Your task to perform on an android device: add a contact in the contacts app Image 0: 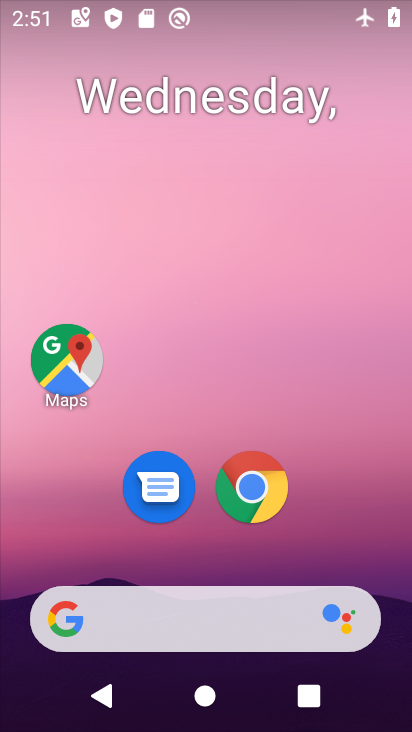
Step 0: drag from (305, 545) to (286, 117)
Your task to perform on an android device: add a contact in the contacts app Image 1: 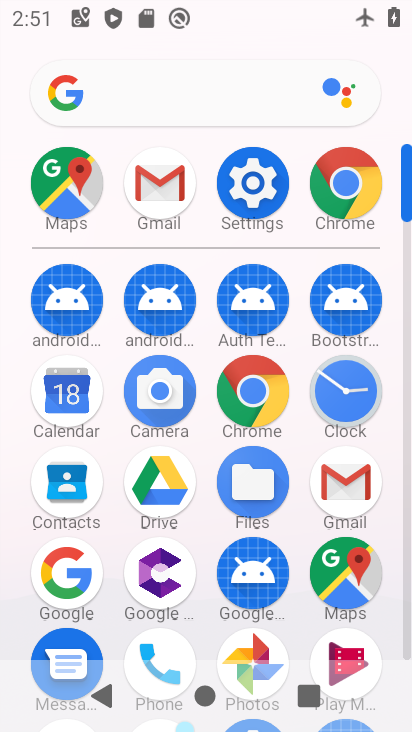
Step 1: click (60, 487)
Your task to perform on an android device: add a contact in the contacts app Image 2: 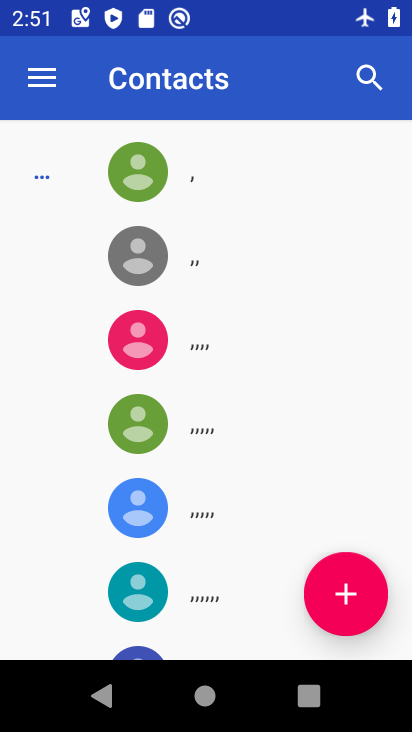
Step 2: click (348, 602)
Your task to perform on an android device: add a contact in the contacts app Image 3: 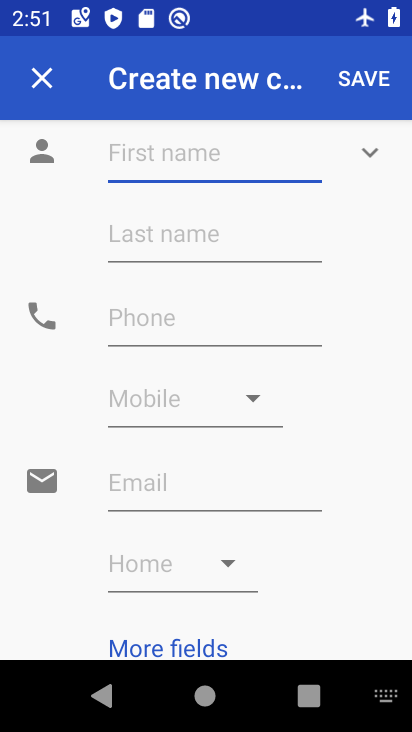
Step 3: type "ol,kmj n"
Your task to perform on an android device: add a contact in the contacts app Image 4: 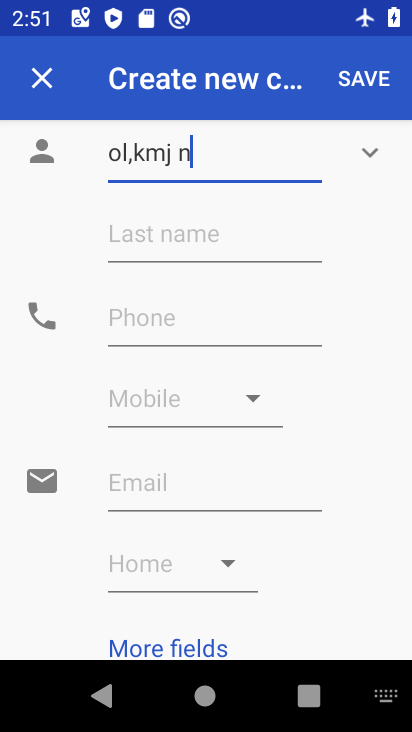
Step 4: type "9898780"
Your task to perform on an android device: add a contact in the contacts app Image 5: 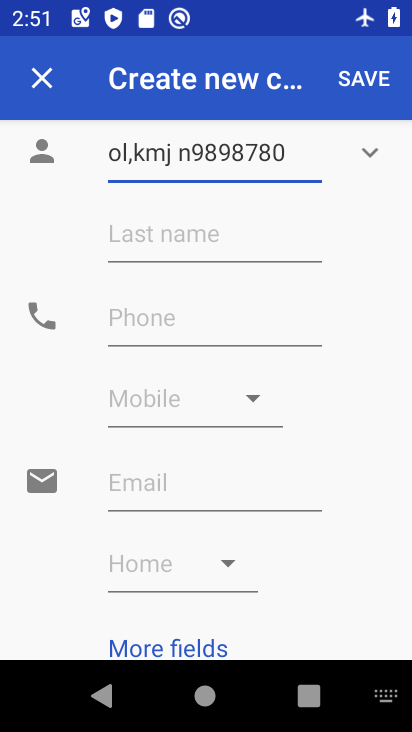
Step 5: click (151, 319)
Your task to perform on an android device: add a contact in the contacts app Image 6: 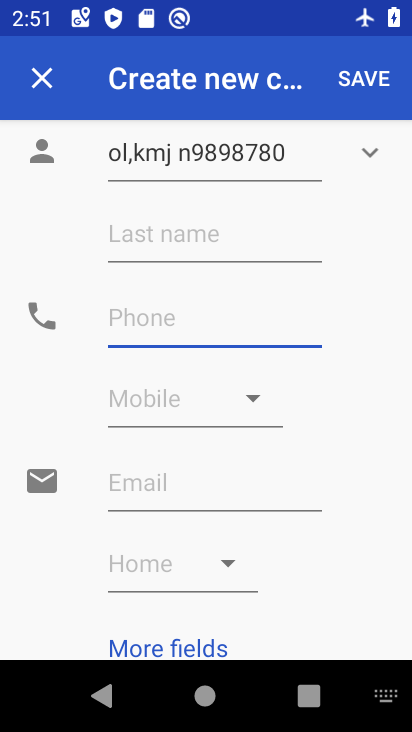
Step 6: type "9876"
Your task to perform on an android device: add a contact in the contacts app Image 7: 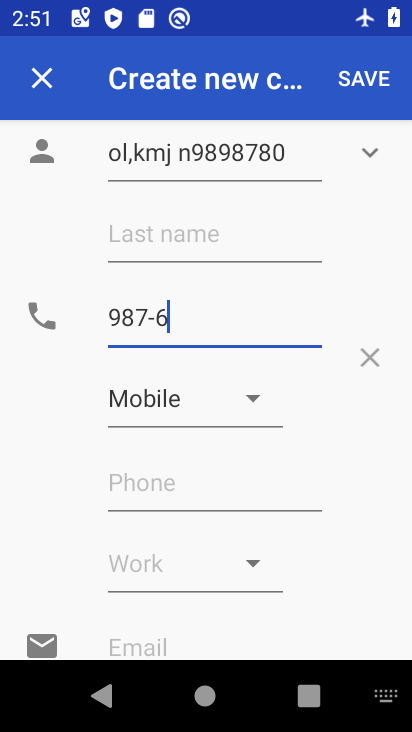
Step 7: click (373, 66)
Your task to perform on an android device: add a contact in the contacts app Image 8: 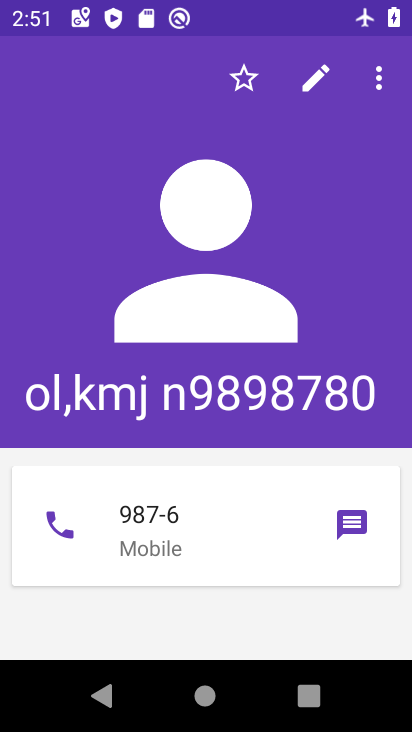
Step 8: task complete